Your task to perform on an android device: Show me popular games on the Play Store Image 0: 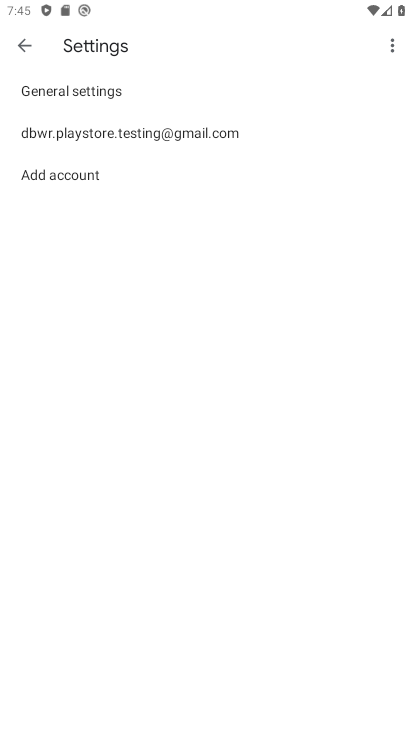
Step 0: press home button
Your task to perform on an android device: Show me popular games on the Play Store Image 1: 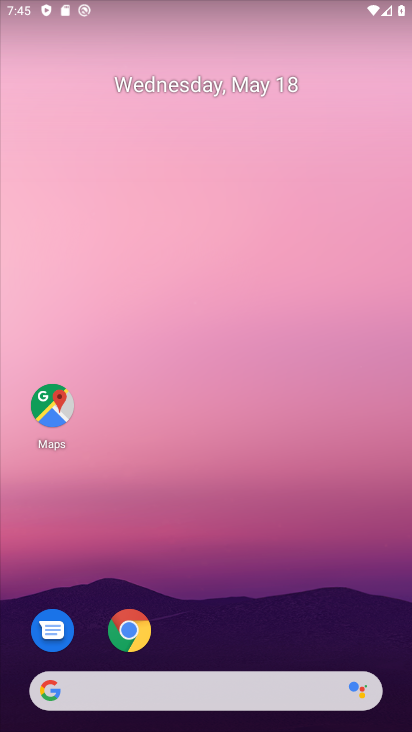
Step 1: drag from (249, 558) to (81, 14)
Your task to perform on an android device: Show me popular games on the Play Store Image 2: 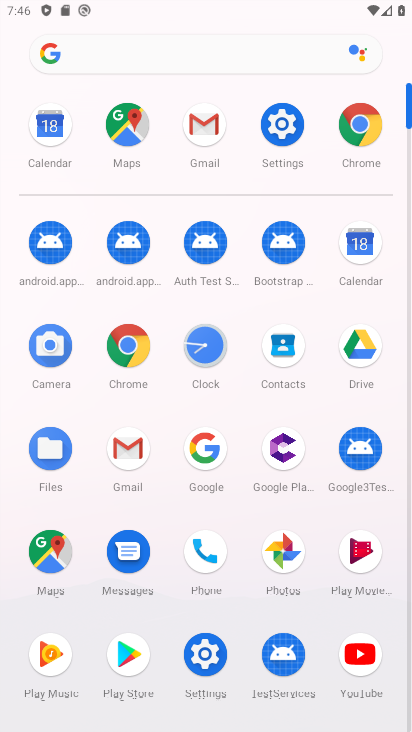
Step 2: click (132, 652)
Your task to perform on an android device: Show me popular games on the Play Store Image 3: 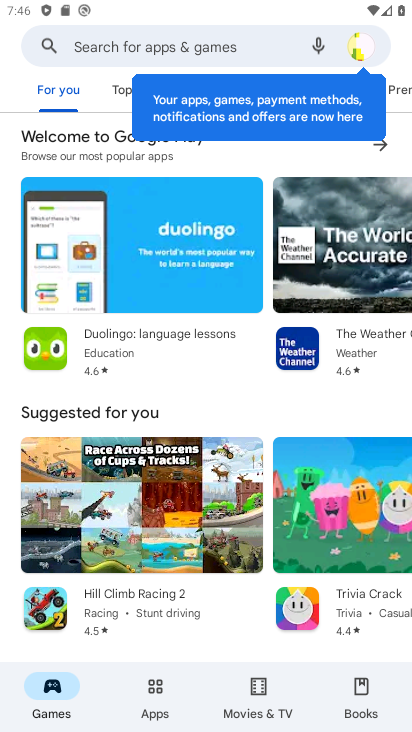
Step 3: task complete